Your task to perform on an android device: toggle notification dots Image 0: 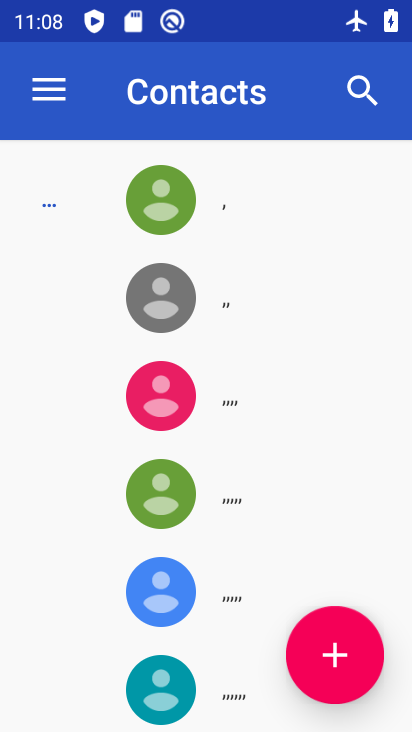
Step 0: press home button
Your task to perform on an android device: toggle notification dots Image 1: 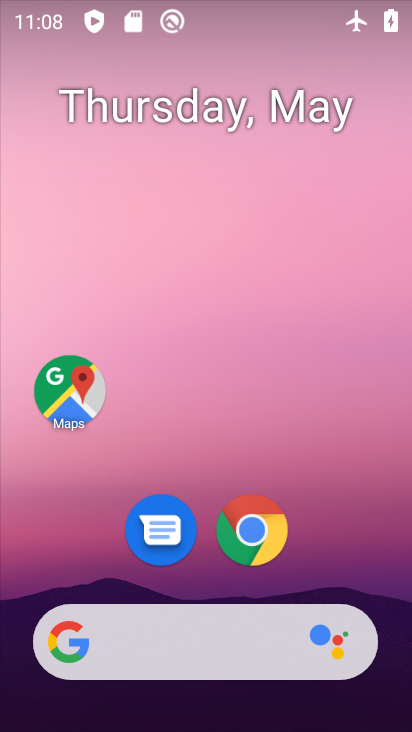
Step 1: drag from (210, 573) to (230, 80)
Your task to perform on an android device: toggle notification dots Image 2: 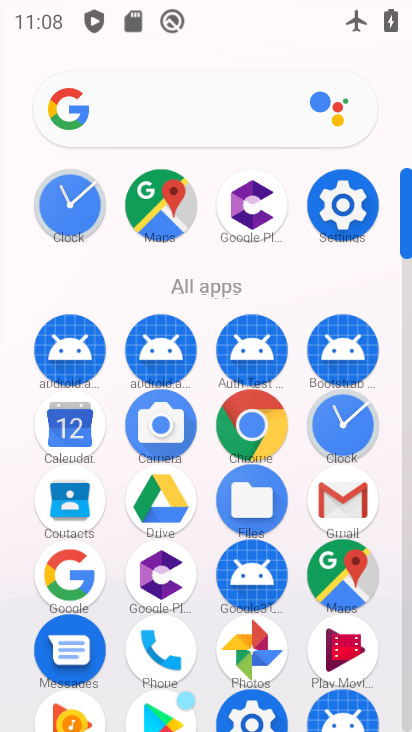
Step 2: click (353, 205)
Your task to perform on an android device: toggle notification dots Image 3: 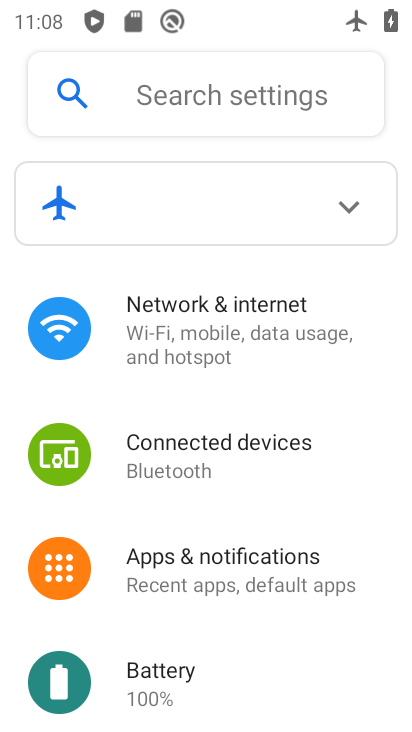
Step 3: click (251, 593)
Your task to perform on an android device: toggle notification dots Image 4: 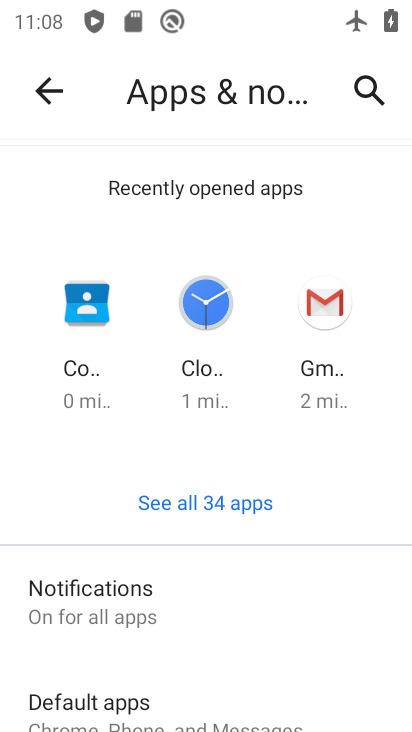
Step 4: click (202, 605)
Your task to perform on an android device: toggle notification dots Image 5: 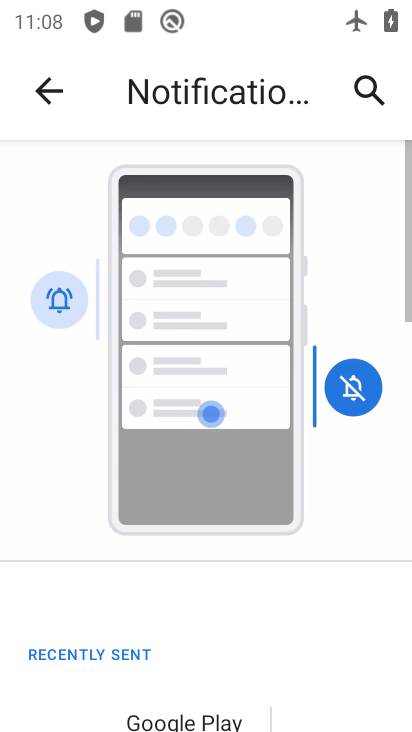
Step 5: drag from (194, 640) to (274, 143)
Your task to perform on an android device: toggle notification dots Image 6: 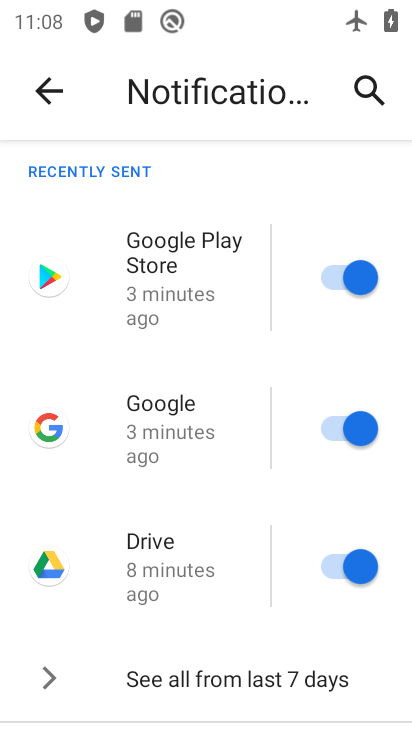
Step 6: drag from (194, 634) to (188, 247)
Your task to perform on an android device: toggle notification dots Image 7: 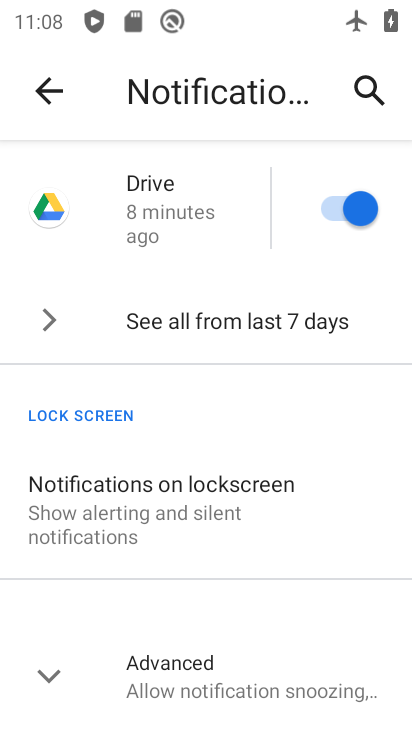
Step 7: click (261, 649)
Your task to perform on an android device: toggle notification dots Image 8: 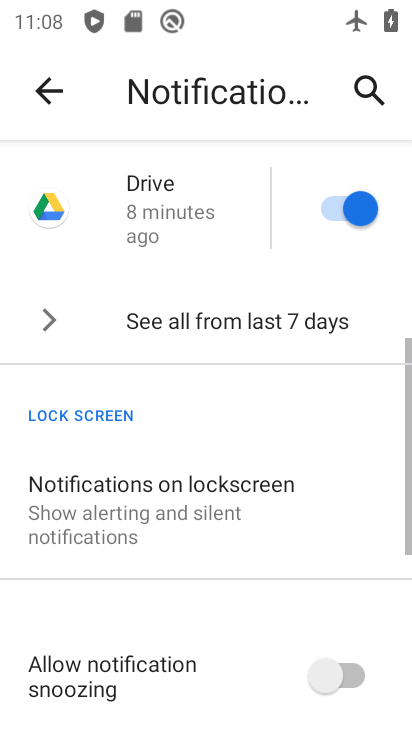
Step 8: drag from (261, 643) to (301, 124)
Your task to perform on an android device: toggle notification dots Image 9: 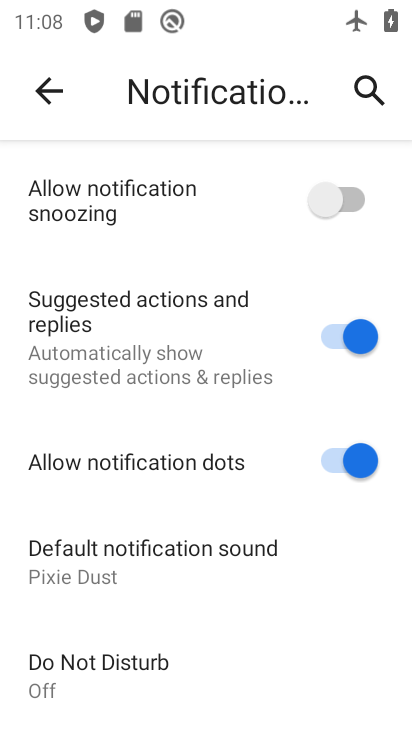
Step 9: click (362, 463)
Your task to perform on an android device: toggle notification dots Image 10: 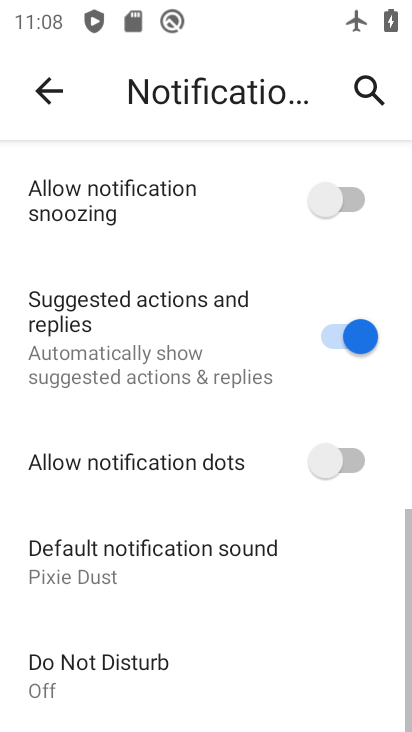
Step 10: task complete